Your task to perform on an android device: Open wifi settings Image 0: 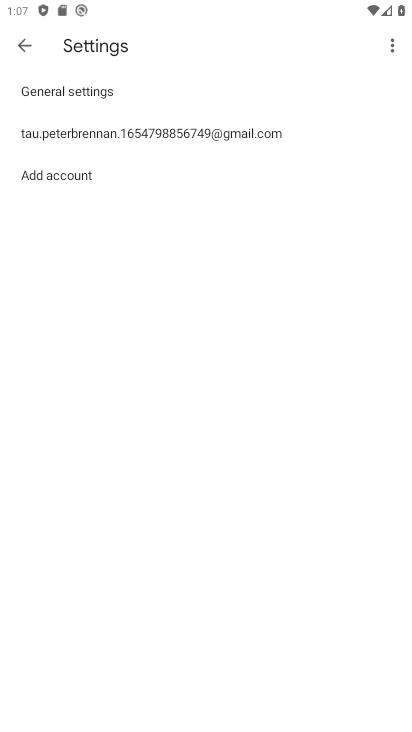
Step 0: press home button
Your task to perform on an android device: Open wifi settings Image 1: 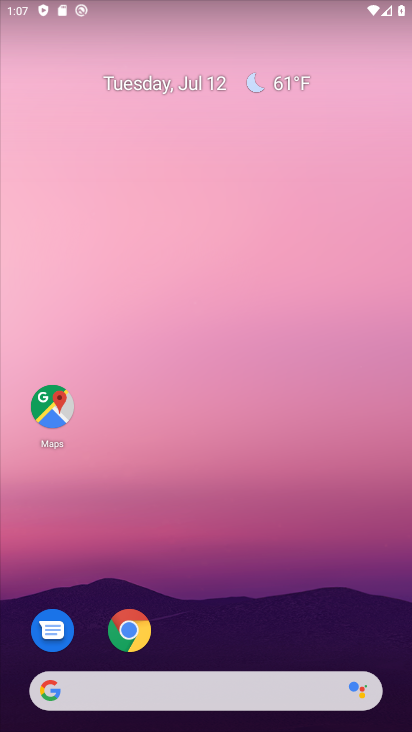
Step 1: drag from (214, 623) to (233, 244)
Your task to perform on an android device: Open wifi settings Image 2: 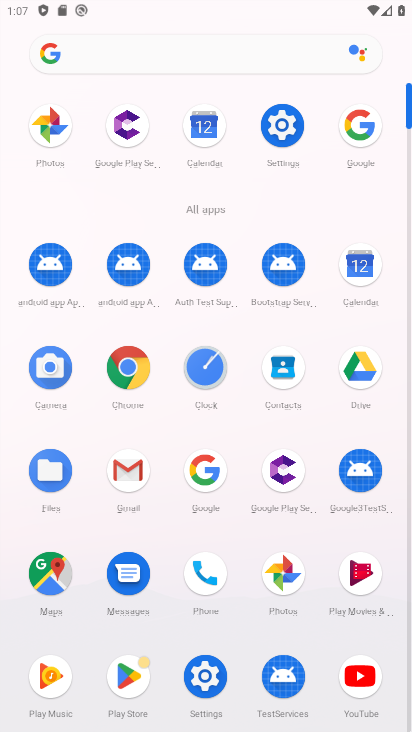
Step 2: click (277, 140)
Your task to perform on an android device: Open wifi settings Image 3: 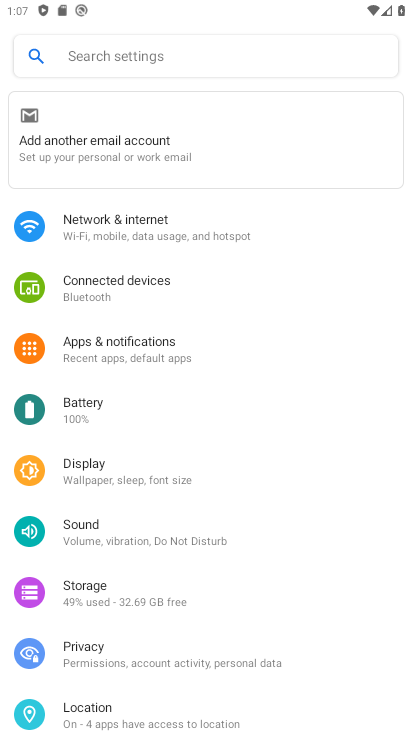
Step 3: click (189, 218)
Your task to perform on an android device: Open wifi settings Image 4: 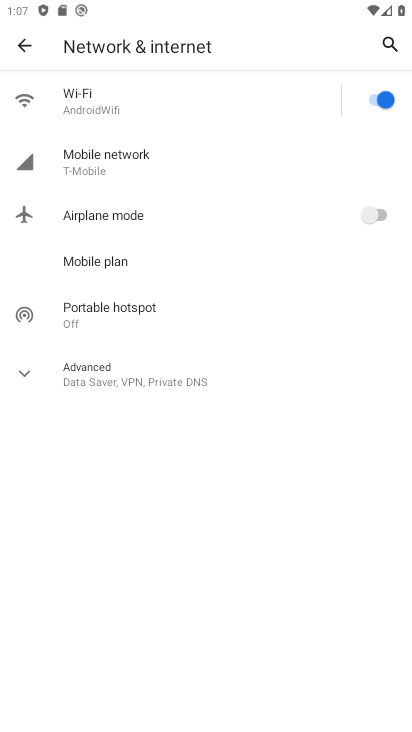
Step 4: click (219, 102)
Your task to perform on an android device: Open wifi settings Image 5: 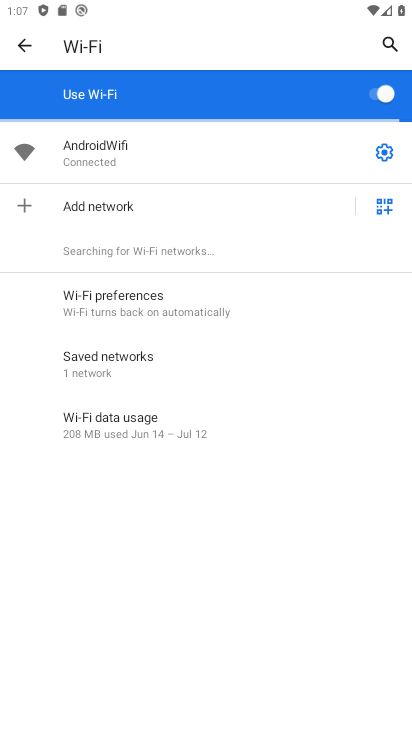
Step 5: task complete